Your task to perform on an android device: Show me productivity apps on the Play Store Image 0: 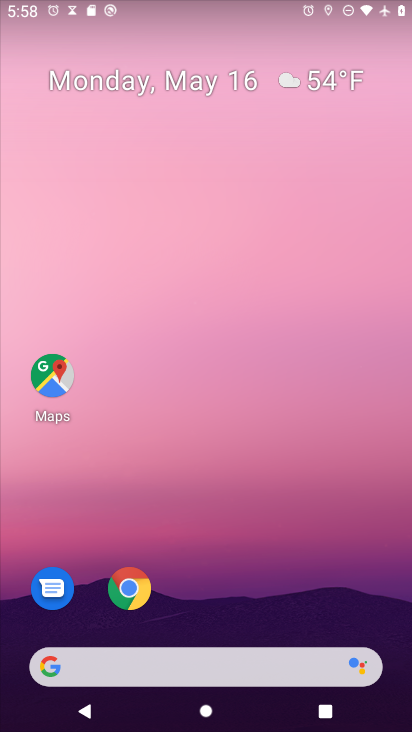
Step 0: drag from (244, 513) to (166, 11)
Your task to perform on an android device: Show me productivity apps on the Play Store Image 1: 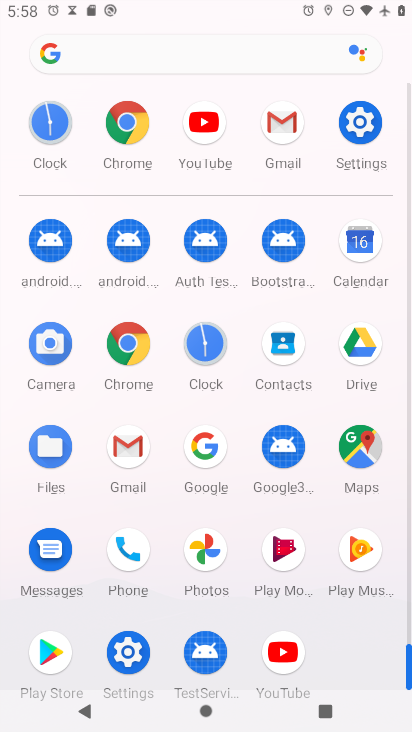
Step 1: drag from (12, 555) to (1, 297)
Your task to perform on an android device: Show me productivity apps on the Play Store Image 2: 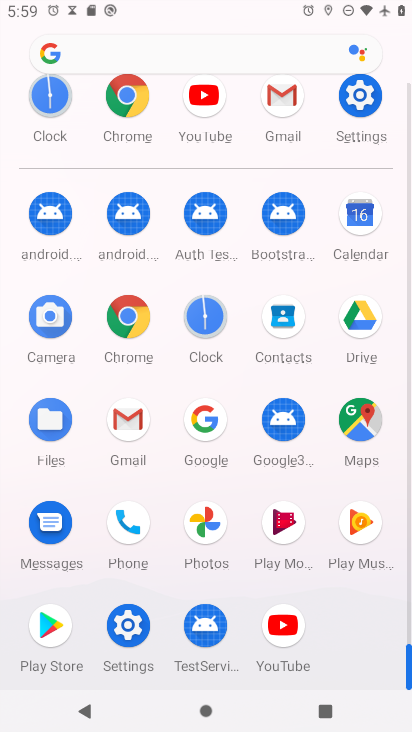
Step 2: click (49, 618)
Your task to perform on an android device: Show me productivity apps on the Play Store Image 3: 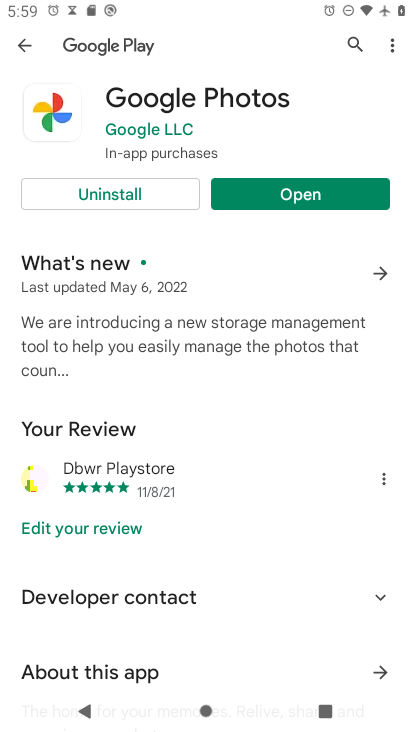
Step 3: click (257, 193)
Your task to perform on an android device: Show me productivity apps on the Play Store Image 4: 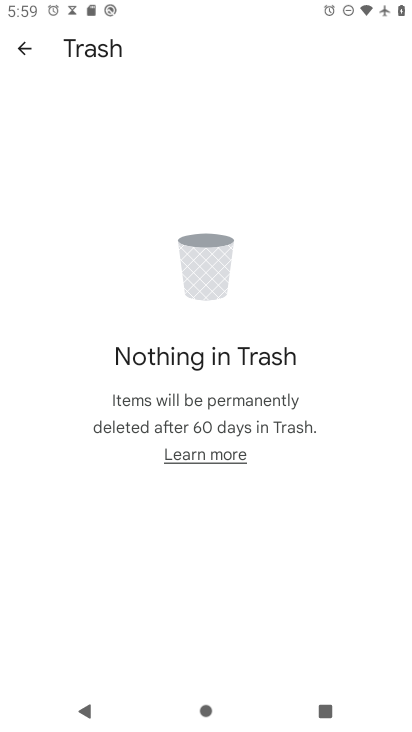
Step 4: press back button
Your task to perform on an android device: Show me productivity apps on the Play Store Image 5: 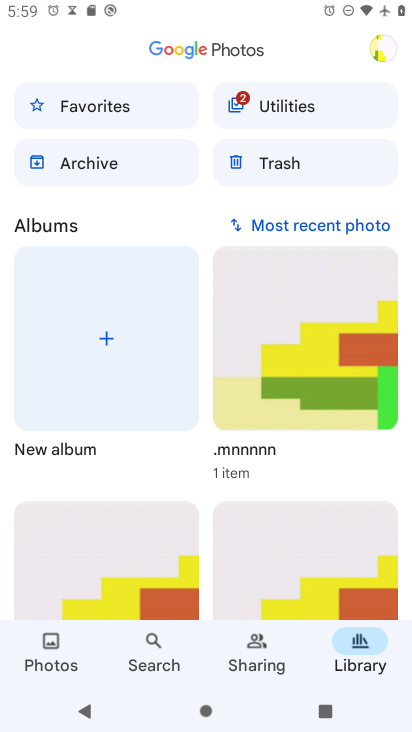
Step 5: press back button
Your task to perform on an android device: Show me productivity apps on the Play Store Image 6: 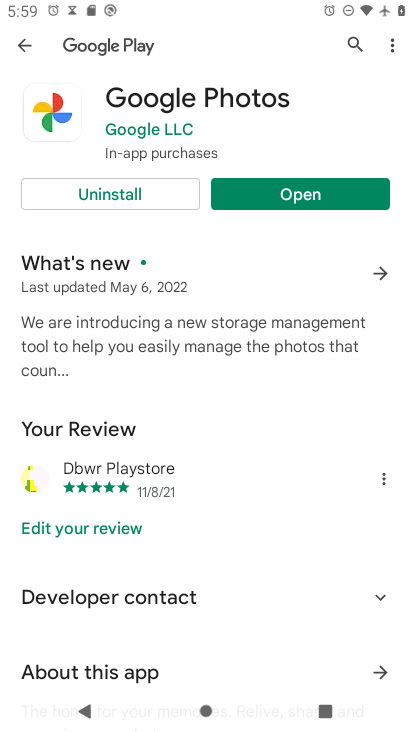
Step 6: click (21, 40)
Your task to perform on an android device: Show me productivity apps on the Play Store Image 7: 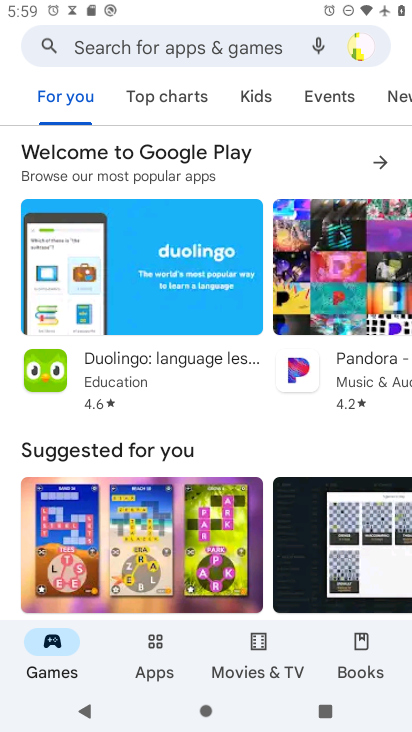
Step 7: click (163, 656)
Your task to perform on an android device: Show me productivity apps on the Play Store Image 8: 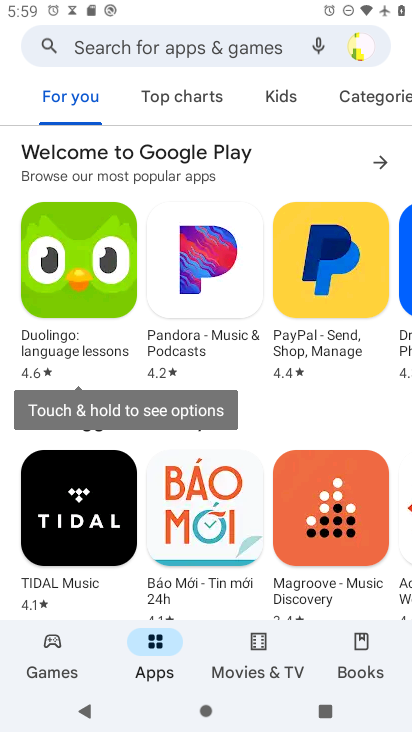
Step 8: click (357, 90)
Your task to perform on an android device: Show me productivity apps on the Play Store Image 9: 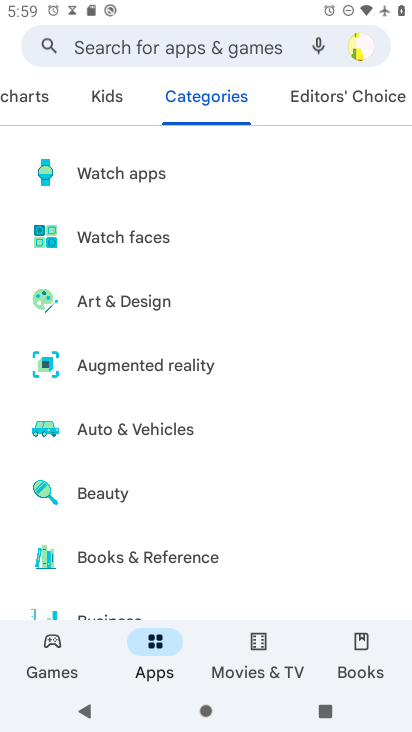
Step 9: drag from (263, 519) to (262, 103)
Your task to perform on an android device: Show me productivity apps on the Play Store Image 10: 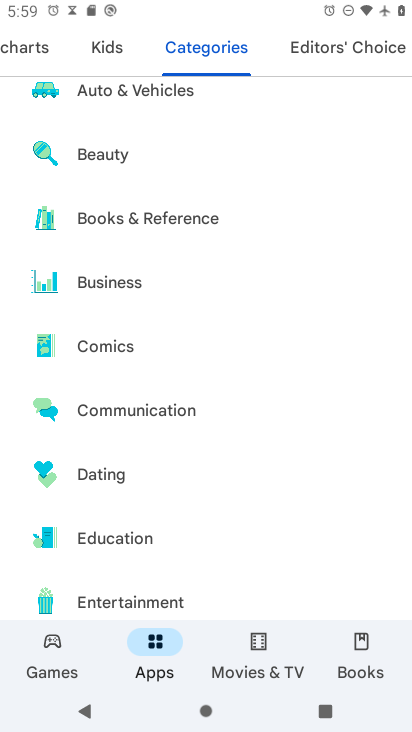
Step 10: drag from (245, 526) to (240, 118)
Your task to perform on an android device: Show me productivity apps on the Play Store Image 11: 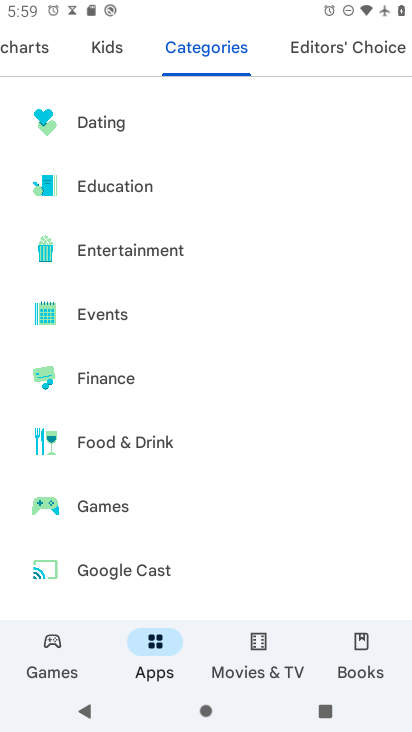
Step 11: drag from (252, 516) to (237, 97)
Your task to perform on an android device: Show me productivity apps on the Play Store Image 12: 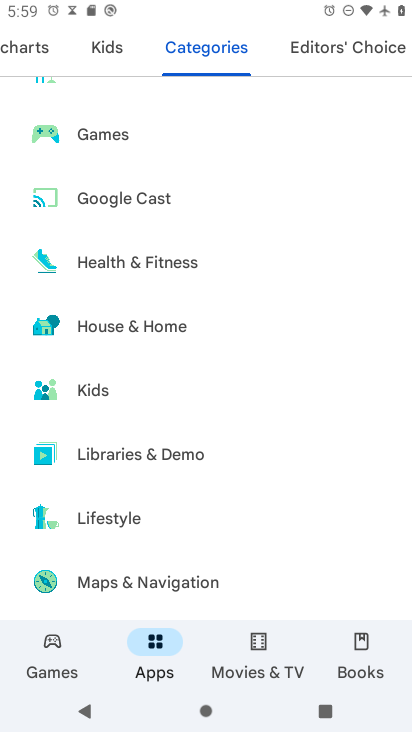
Step 12: drag from (233, 516) to (228, 132)
Your task to perform on an android device: Show me productivity apps on the Play Store Image 13: 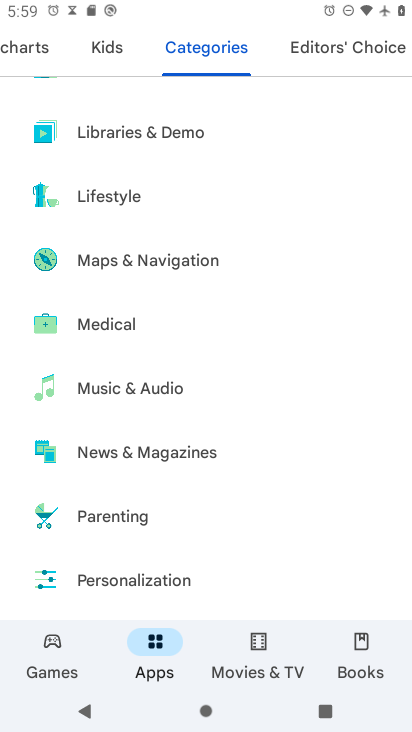
Step 13: drag from (220, 507) to (234, 178)
Your task to perform on an android device: Show me productivity apps on the Play Store Image 14: 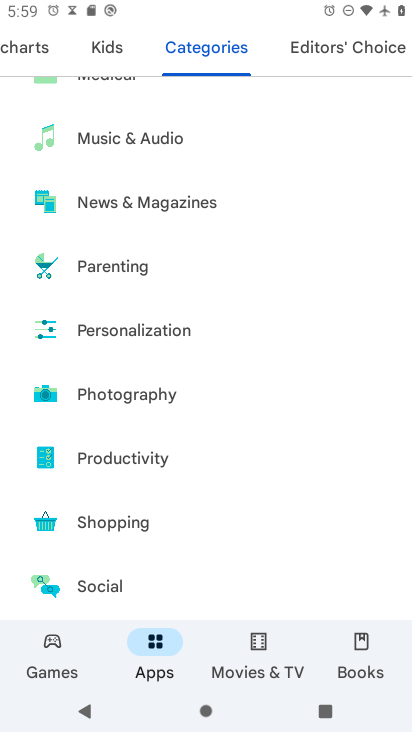
Step 14: click (149, 458)
Your task to perform on an android device: Show me productivity apps on the Play Store Image 15: 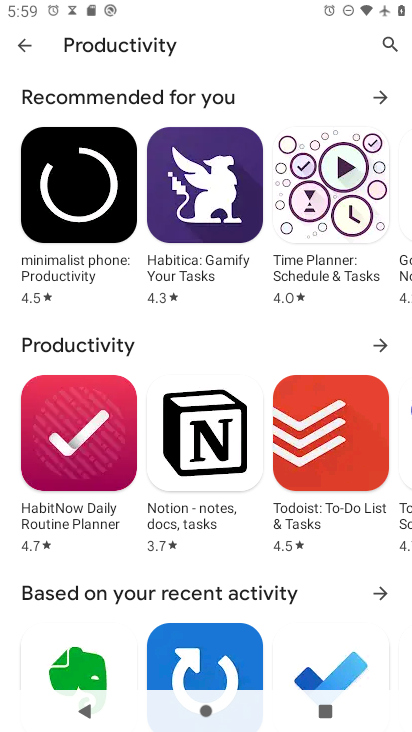
Step 15: task complete